Your task to perform on an android device: Go to location settings Image 0: 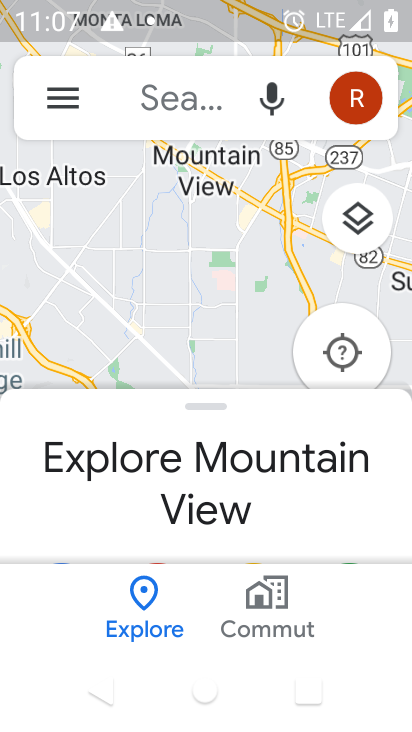
Step 0: press home button
Your task to perform on an android device: Go to location settings Image 1: 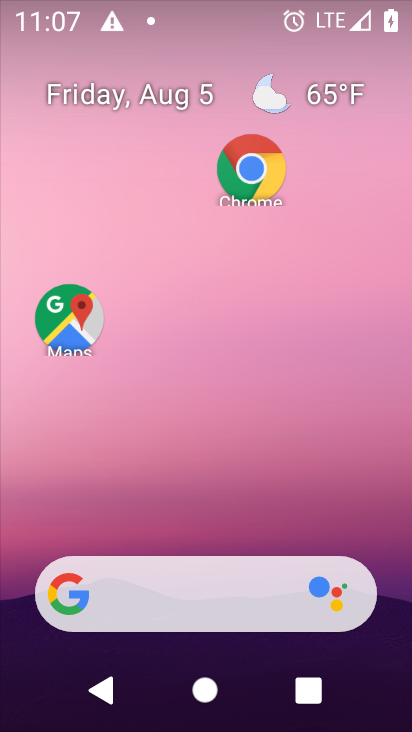
Step 1: drag from (202, 497) to (184, 135)
Your task to perform on an android device: Go to location settings Image 2: 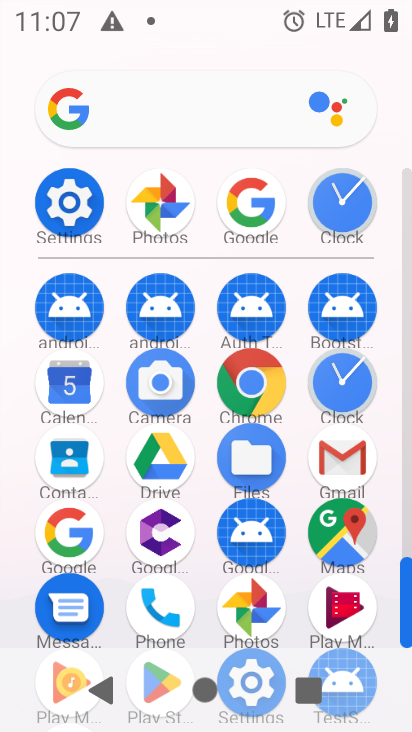
Step 2: click (71, 203)
Your task to perform on an android device: Go to location settings Image 3: 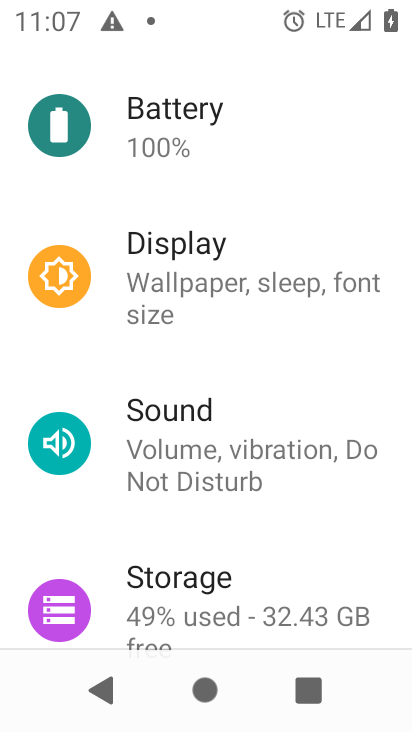
Step 3: drag from (218, 533) to (225, 189)
Your task to perform on an android device: Go to location settings Image 4: 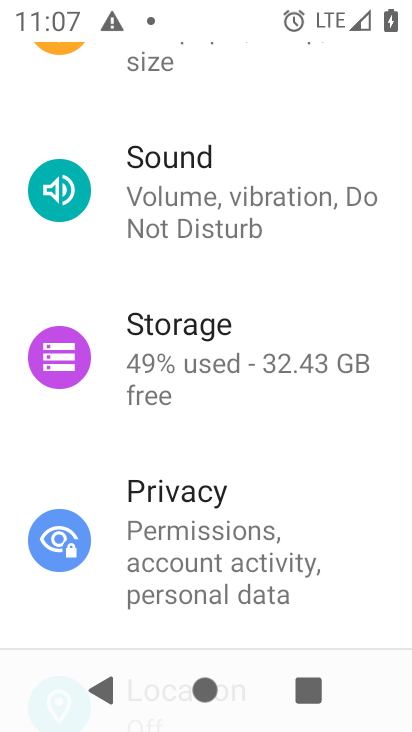
Step 4: drag from (231, 567) to (237, 241)
Your task to perform on an android device: Go to location settings Image 5: 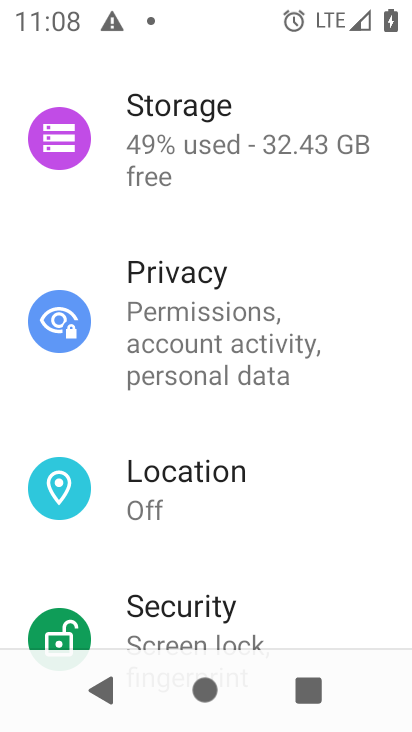
Step 5: click (175, 509)
Your task to perform on an android device: Go to location settings Image 6: 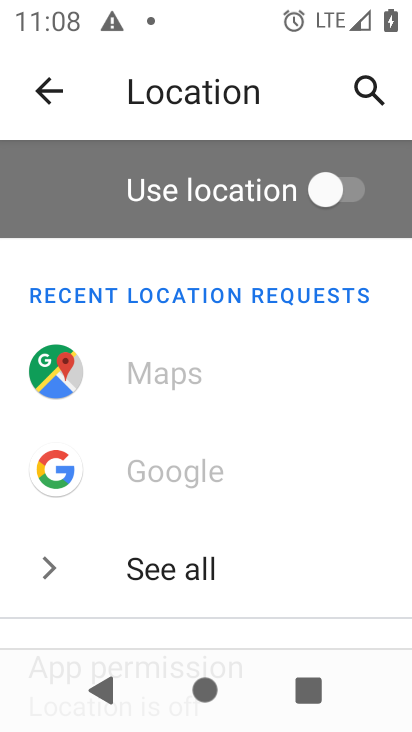
Step 6: task complete